Your task to perform on an android device: What is the recent news? Image 0: 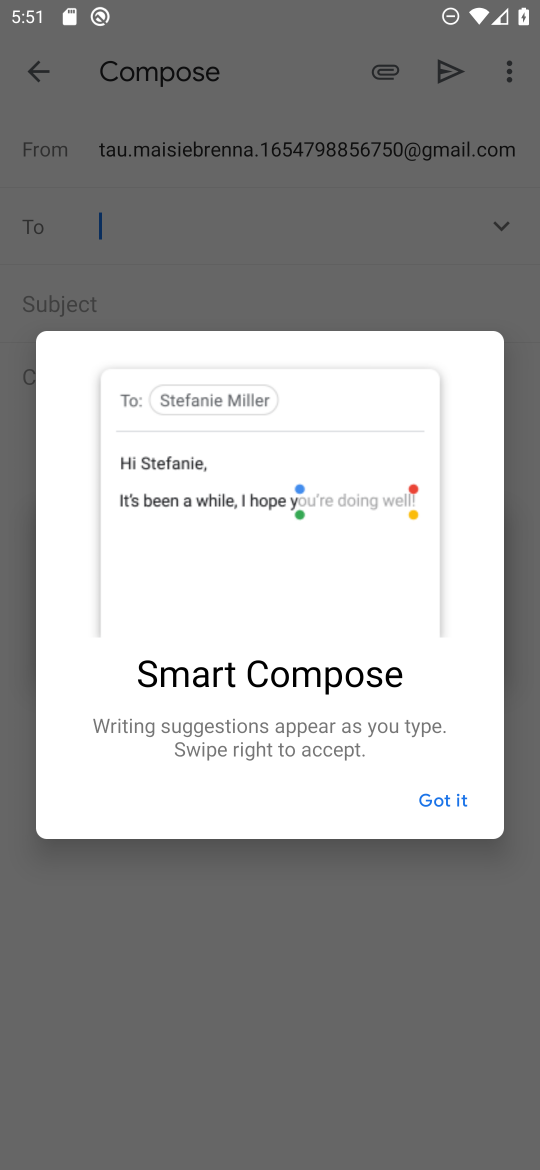
Step 0: press home button
Your task to perform on an android device: What is the recent news? Image 1: 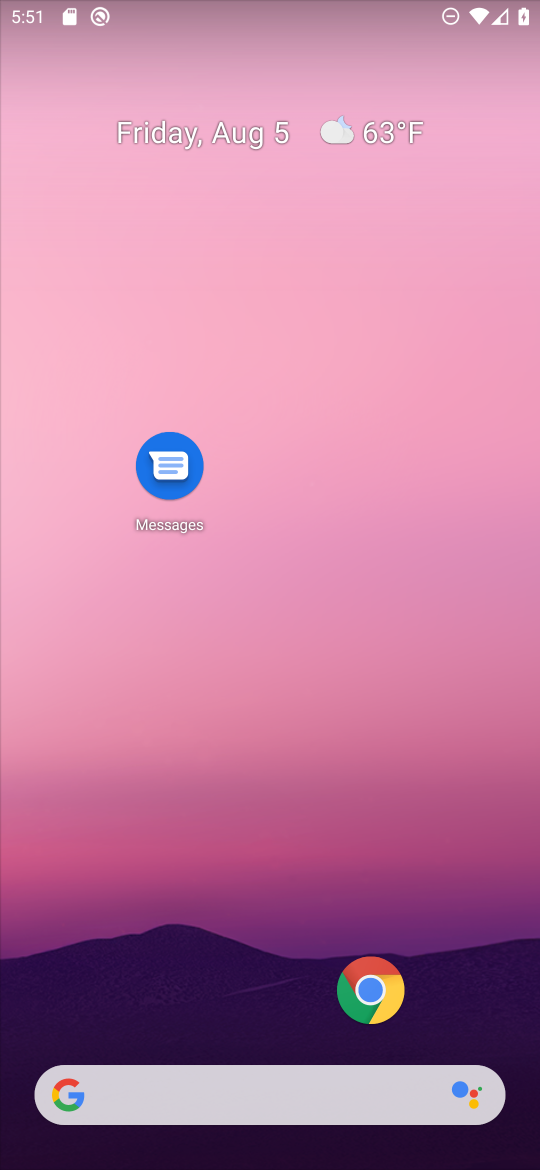
Step 1: drag from (218, 1054) to (185, 429)
Your task to perform on an android device: What is the recent news? Image 2: 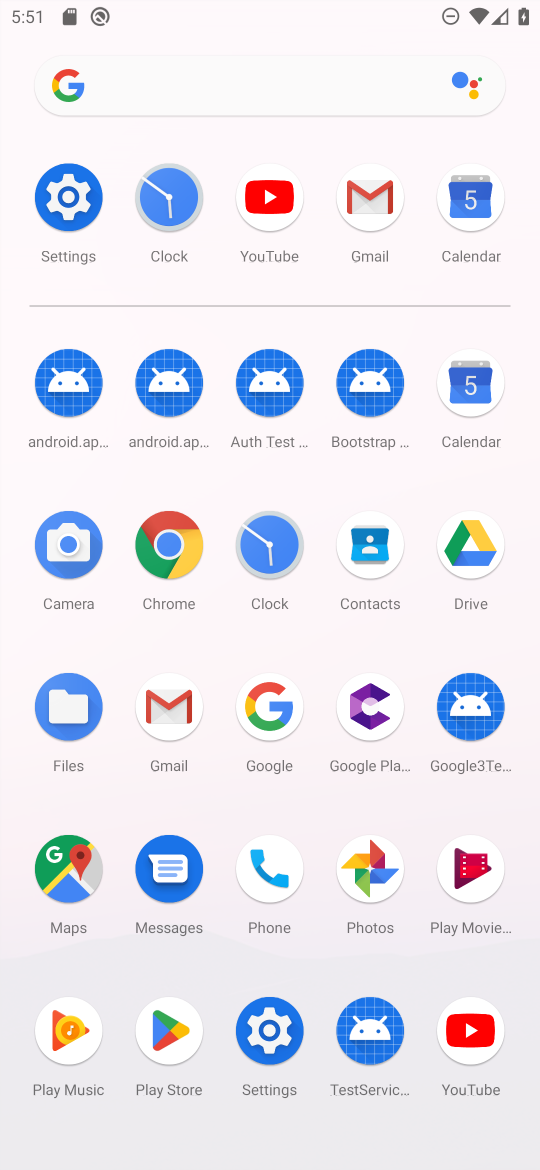
Step 2: click (284, 732)
Your task to perform on an android device: What is the recent news? Image 3: 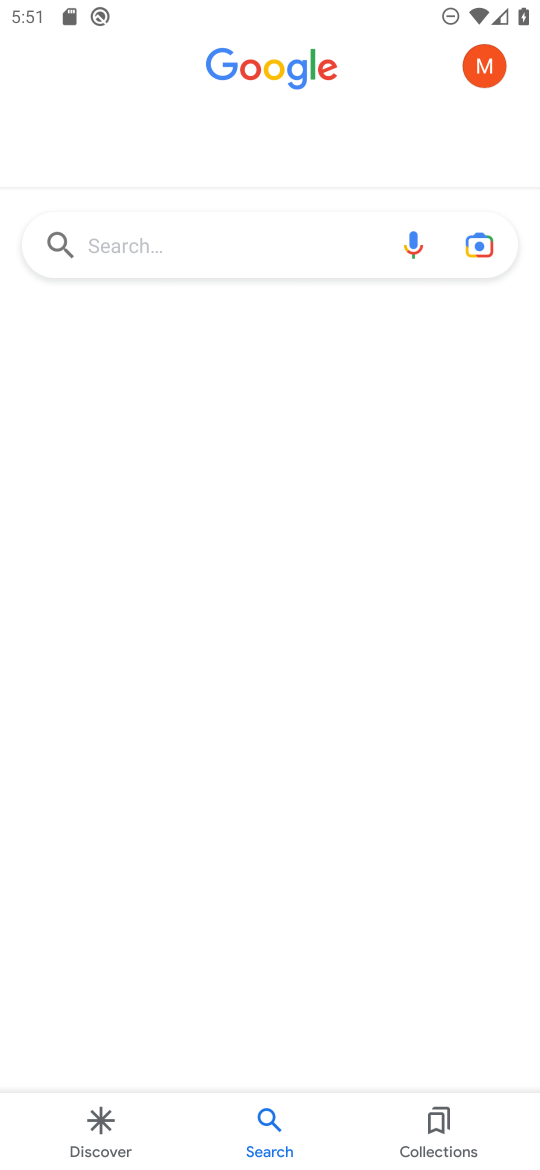
Step 3: click (215, 253)
Your task to perform on an android device: What is the recent news? Image 4: 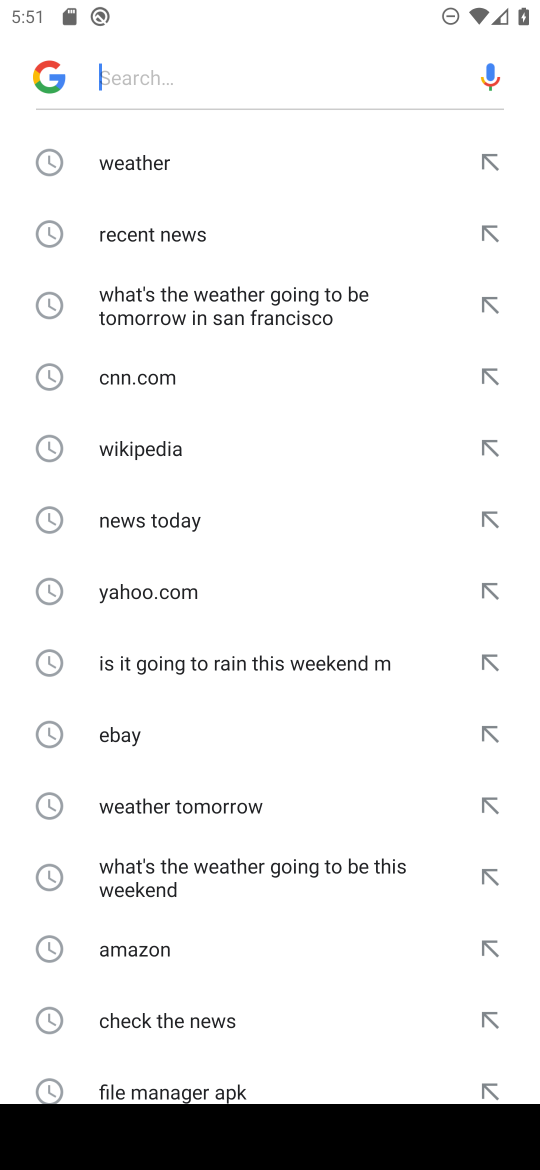
Step 4: click (174, 236)
Your task to perform on an android device: What is the recent news? Image 5: 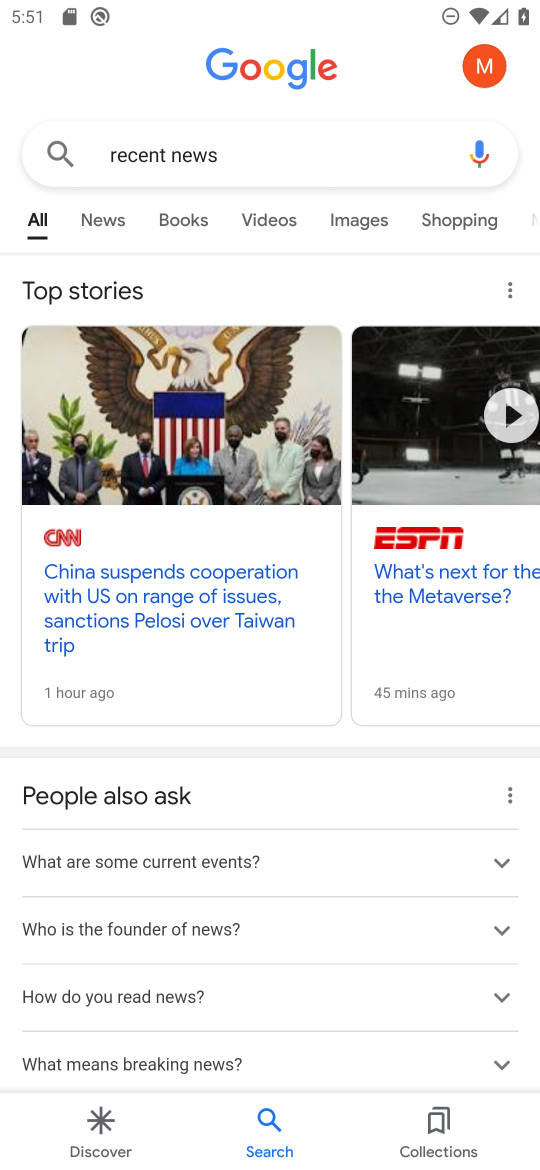
Step 5: task complete